Your task to perform on an android device: Open battery settings Image 0: 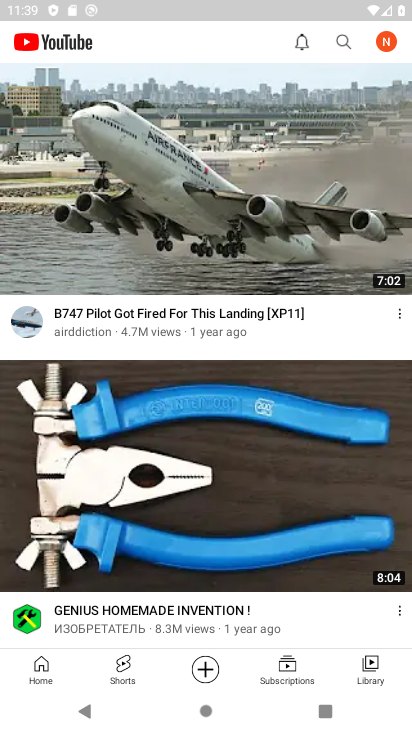
Step 0: press home button
Your task to perform on an android device: Open battery settings Image 1: 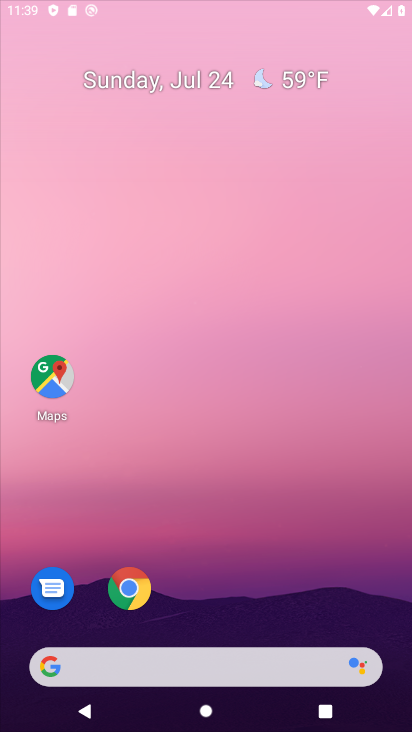
Step 1: drag from (390, 682) to (148, 62)
Your task to perform on an android device: Open battery settings Image 2: 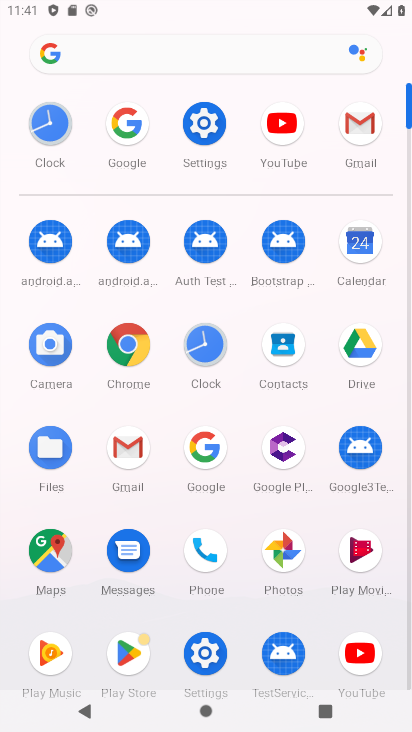
Step 2: click (199, 660)
Your task to perform on an android device: Open battery settings Image 3: 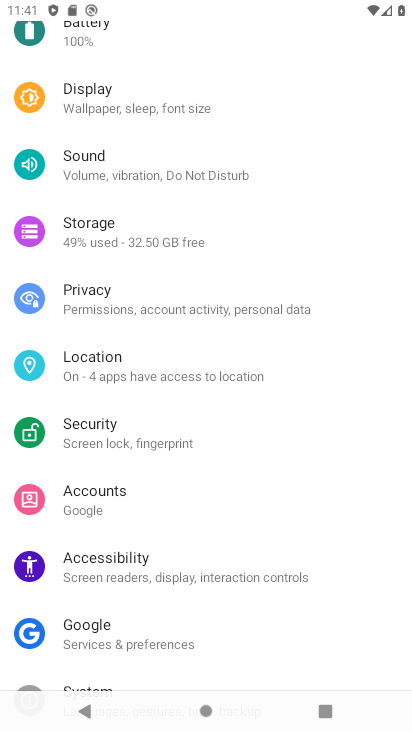
Step 3: click (115, 34)
Your task to perform on an android device: Open battery settings Image 4: 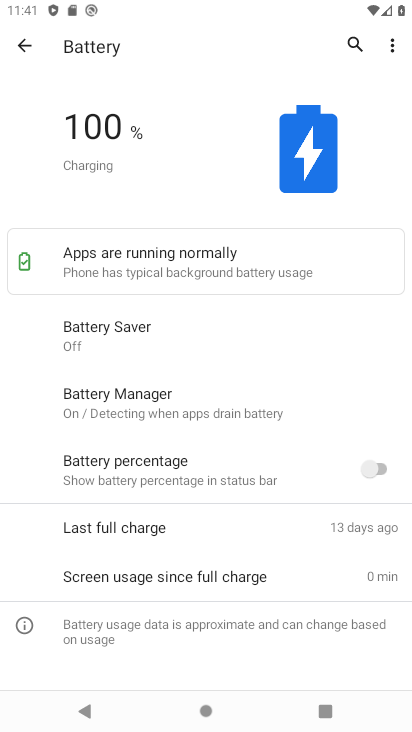
Step 4: task complete